Your task to perform on an android device: Show me the alarms in the clock app Image 0: 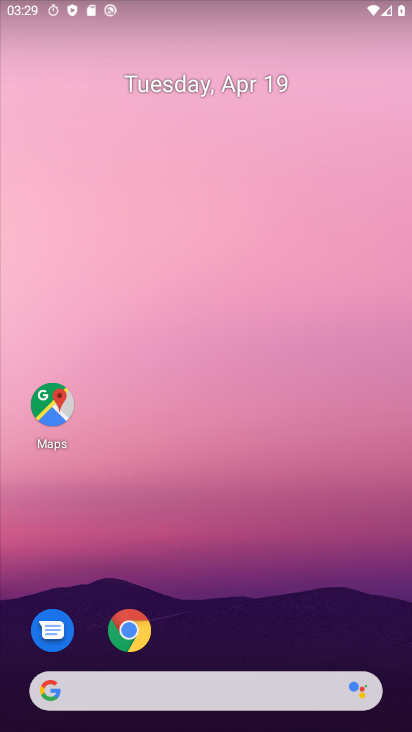
Step 0: drag from (270, 585) to (269, 87)
Your task to perform on an android device: Show me the alarms in the clock app Image 1: 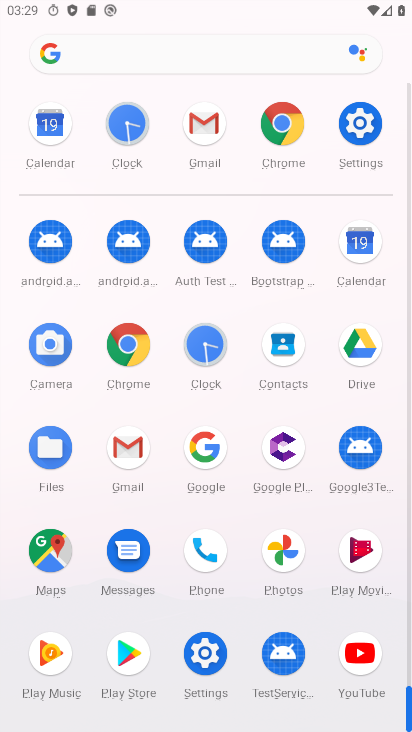
Step 1: click (122, 124)
Your task to perform on an android device: Show me the alarms in the clock app Image 2: 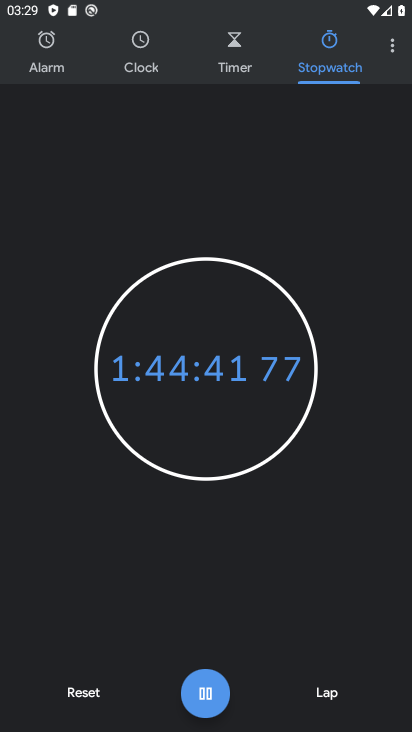
Step 2: click (48, 58)
Your task to perform on an android device: Show me the alarms in the clock app Image 3: 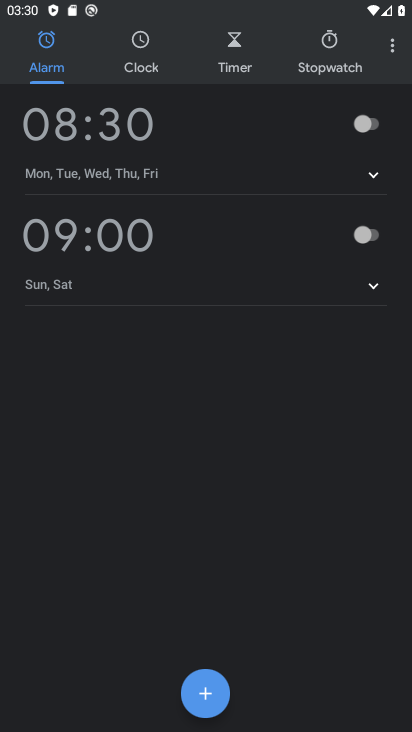
Step 3: task complete